Your task to perform on an android device: Open settings Image 0: 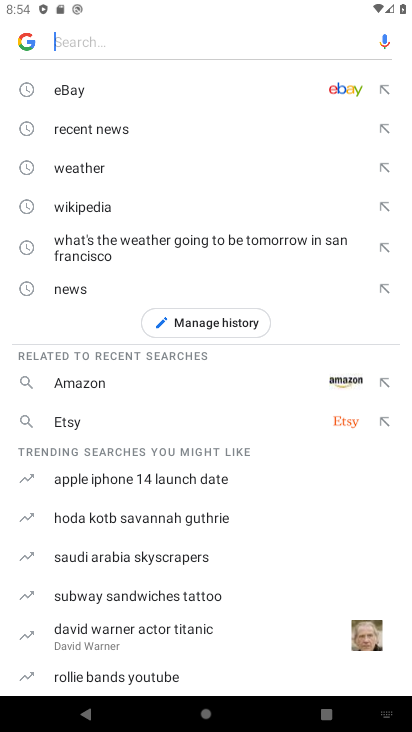
Step 0: press home button
Your task to perform on an android device: Open settings Image 1: 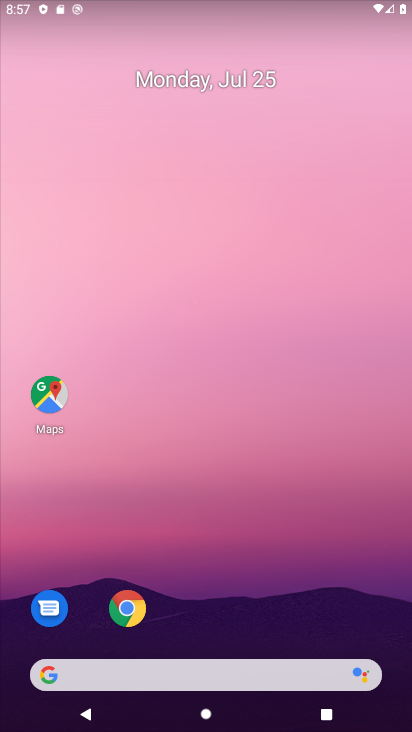
Step 1: drag from (240, 629) to (306, 6)
Your task to perform on an android device: Open settings Image 2: 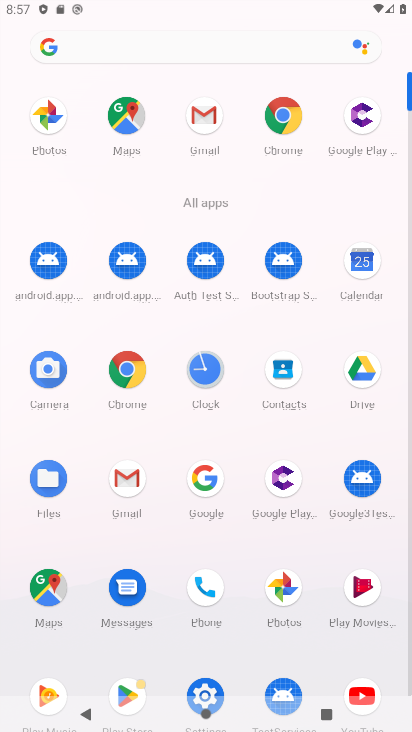
Step 2: click (204, 688)
Your task to perform on an android device: Open settings Image 3: 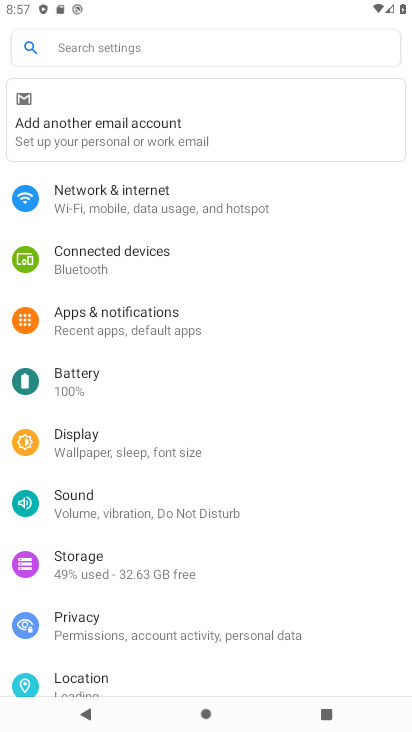
Step 3: task complete